Your task to perform on an android device: turn off location Image 0: 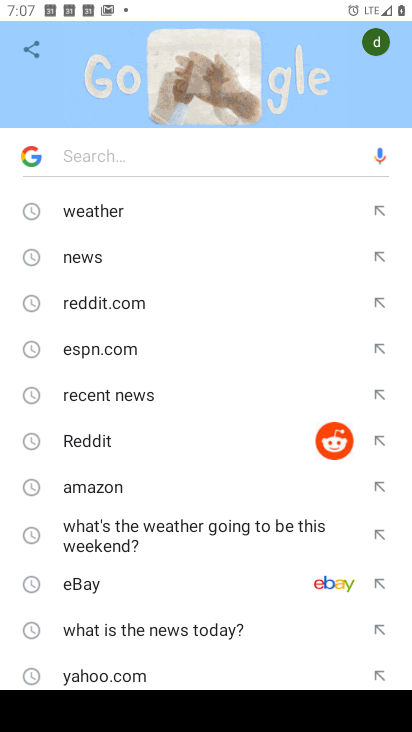
Step 0: press home button
Your task to perform on an android device: turn off location Image 1: 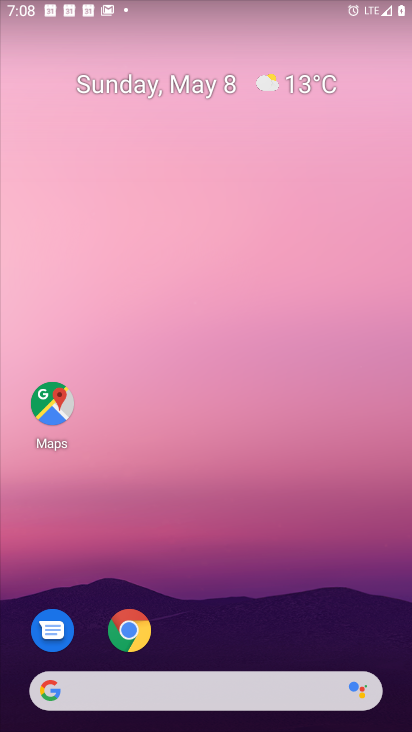
Step 1: drag from (251, 569) to (116, 4)
Your task to perform on an android device: turn off location Image 2: 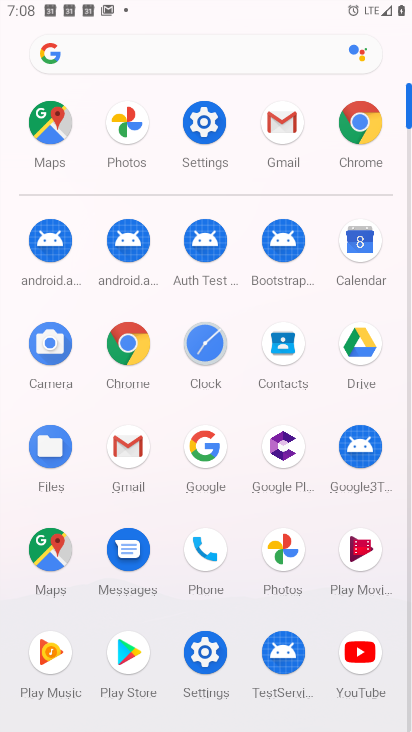
Step 2: click (204, 120)
Your task to perform on an android device: turn off location Image 3: 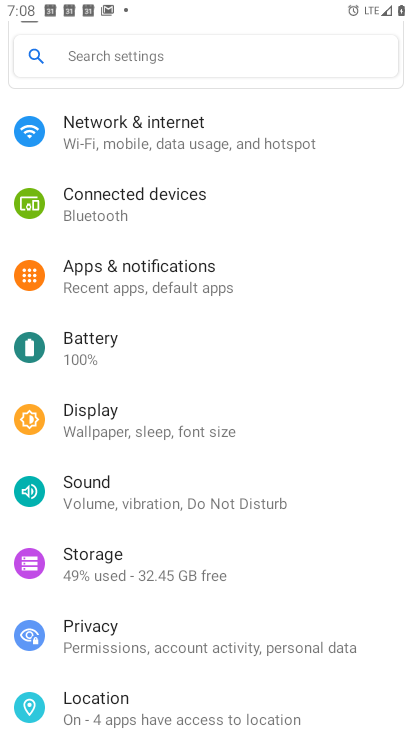
Step 3: click (101, 698)
Your task to perform on an android device: turn off location Image 4: 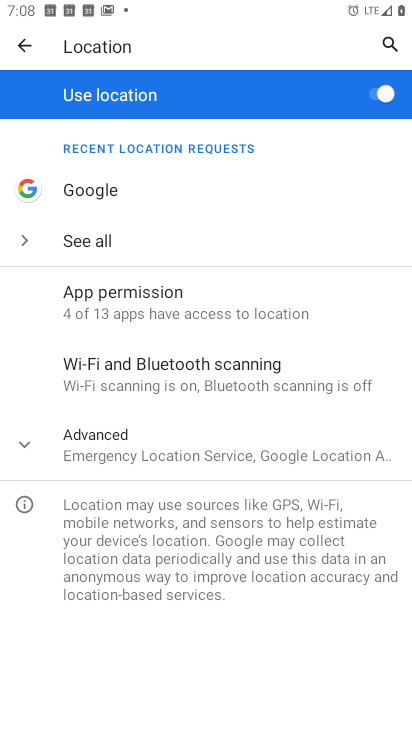
Step 4: click (385, 93)
Your task to perform on an android device: turn off location Image 5: 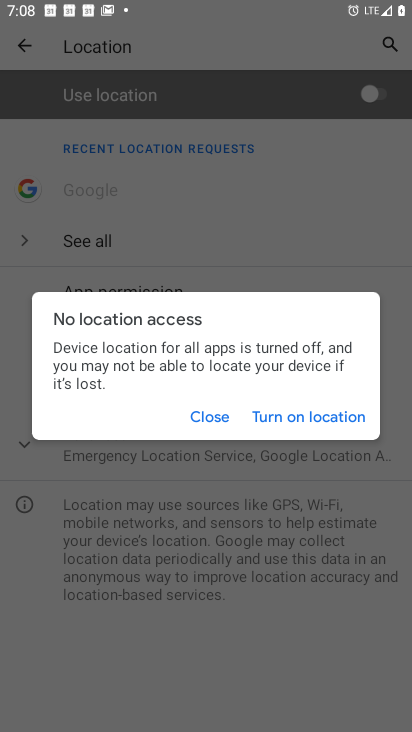
Step 5: click (205, 413)
Your task to perform on an android device: turn off location Image 6: 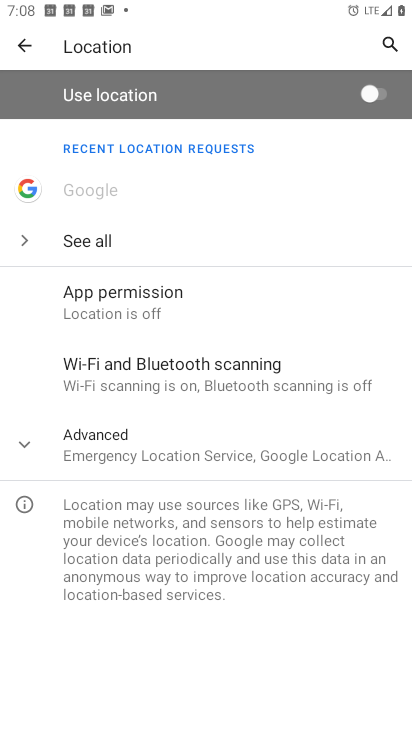
Step 6: task complete